Your task to perform on an android device: Open Maps and search for coffee Image 0: 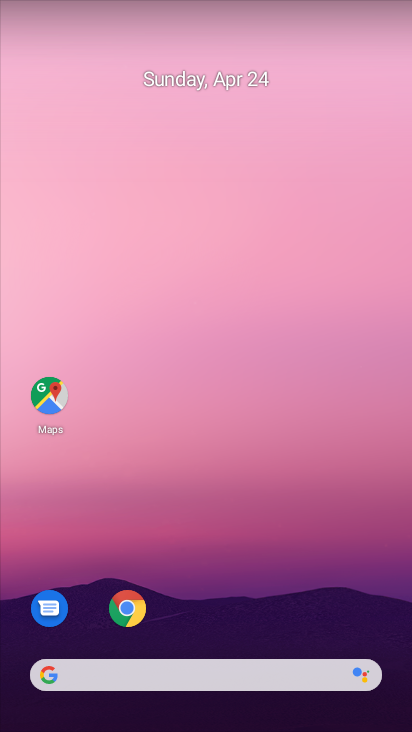
Step 0: click (54, 393)
Your task to perform on an android device: Open Maps and search for coffee Image 1: 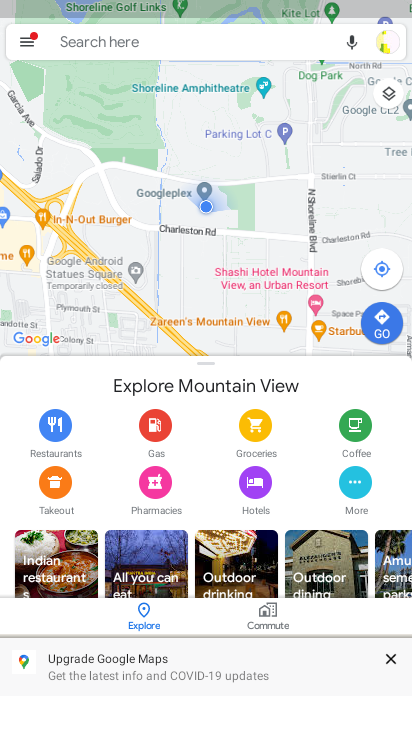
Step 1: click (187, 43)
Your task to perform on an android device: Open Maps and search for coffee Image 2: 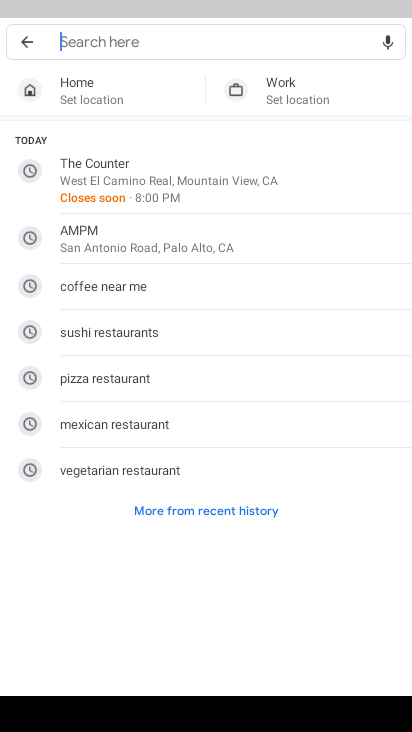
Step 2: click (126, 284)
Your task to perform on an android device: Open Maps and search for coffee Image 3: 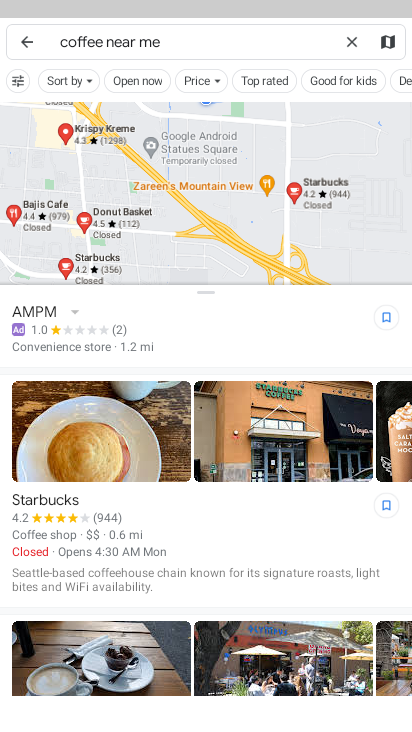
Step 3: task complete